Your task to perform on an android device: turn notification dots off Image 0: 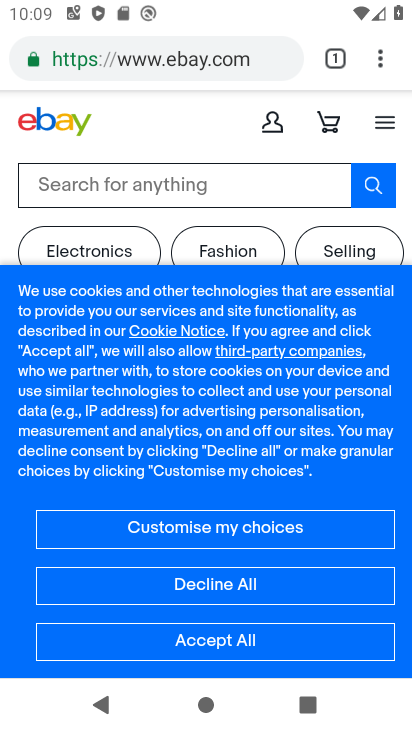
Step 0: press home button
Your task to perform on an android device: turn notification dots off Image 1: 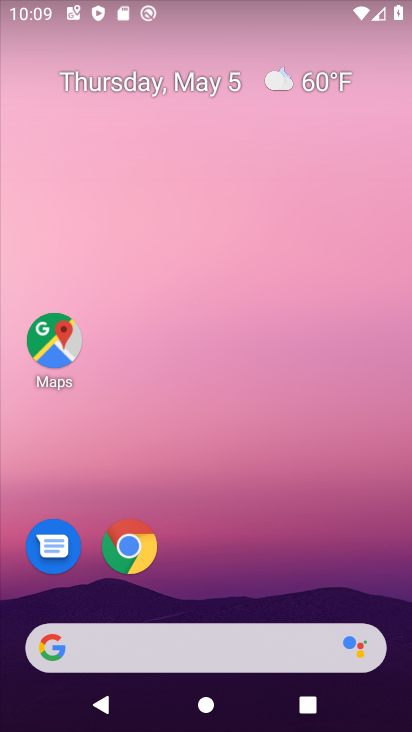
Step 1: drag from (234, 598) to (198, 129)
Your task to perform on an android device: turn notification dots off Image 2: 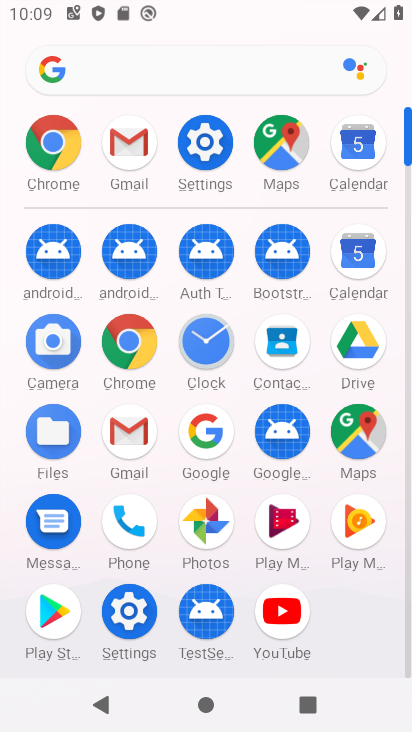
Step 2: click (206, 146)
Your task to perform on an android device: turn notification dots off Image 3: 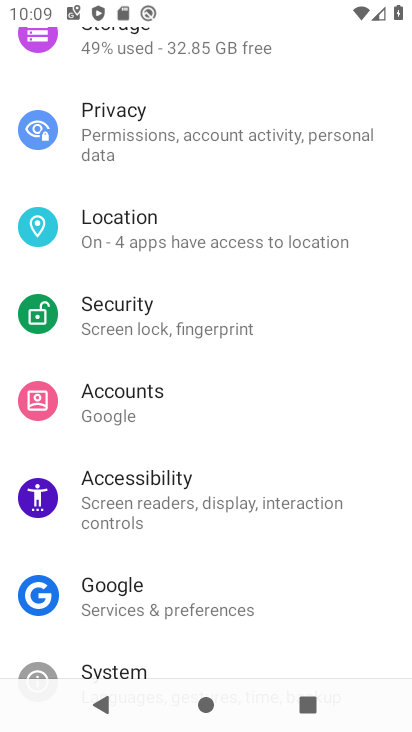
Step 3: drag from (166, 372) to (191, 439)
Your task to perform on an android device: turn notification dots off Image 4: 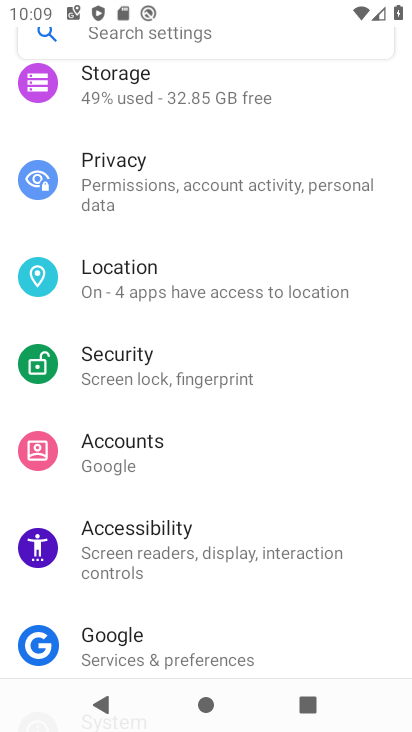
Step 4: drag from (203, 340) to (216, 421)
Your task to perform on an android device: turn notification dots off Image 5: 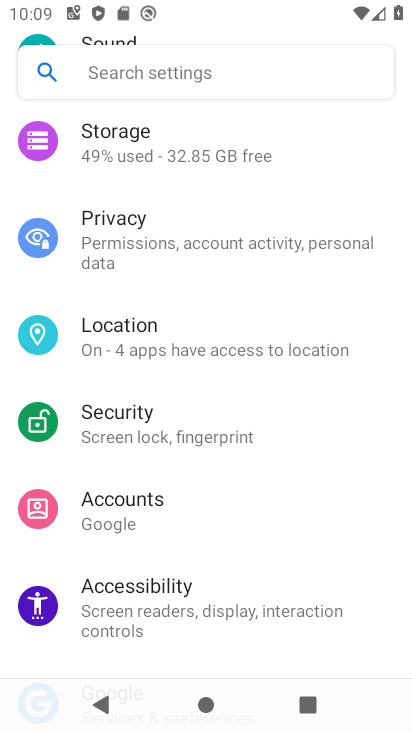
Step 5: drag from (217, 317) to (226, 395)
Your task to perform on an android device: turn notification dots off Image 6: 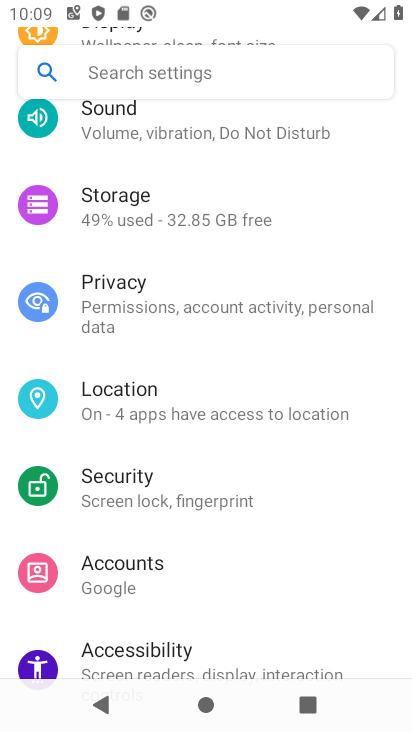
Step 6: drag from (209, 306) to (207, 386)
Your task to perform on an android device: turn notification dots off Image 7: 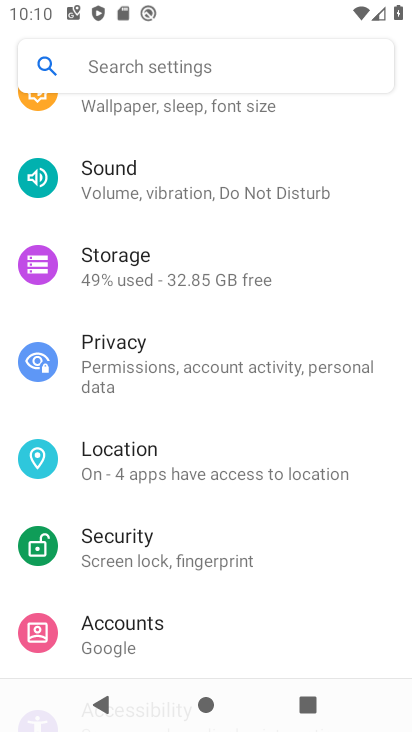
Step 7: drag from (179, 264) to (187, 349)
Your task to perform on an android device: turn notification dots off Image 8: 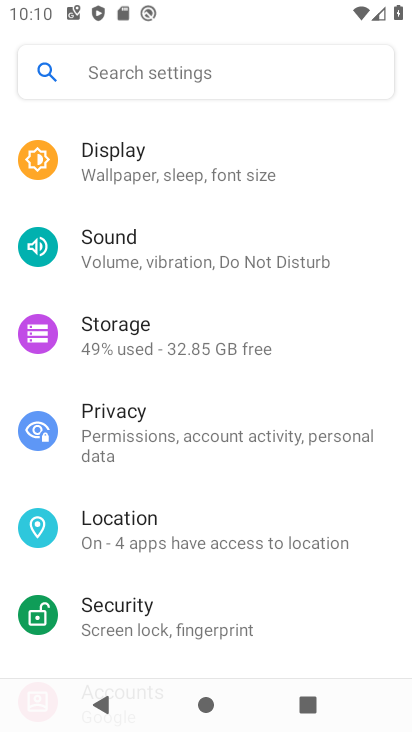
Step 8: drag from (155, 196) to (214, 362)
Your task to perform on an android device: turn notification dots off Image 9: 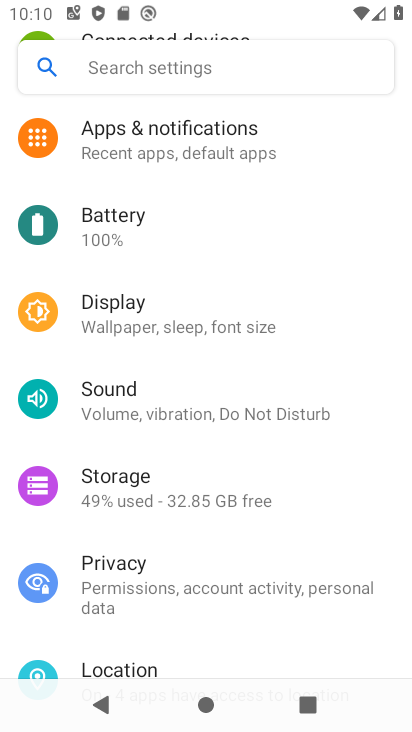
Step 9: click (220, 155)
Your task to perform on an android device: turn notification dots off Image 10: 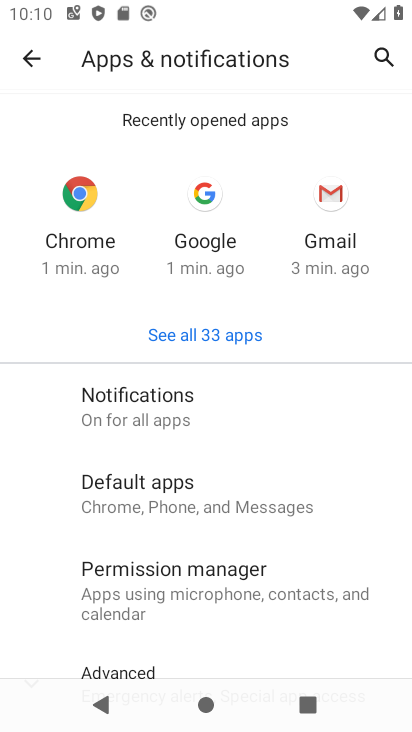
Step 10: click (174, 406)
Your task to perform on an android device: turn notification dots off Image 11: 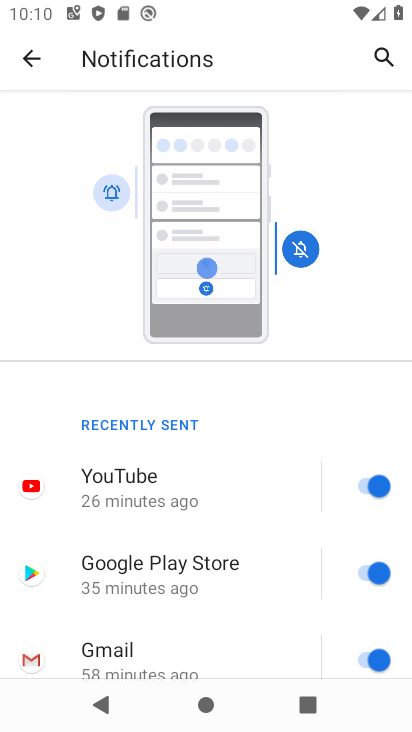
Step 11: drag from (131, 612) to (133, 433)
Your task to perform on an android device: turn notification dots off Image 12: 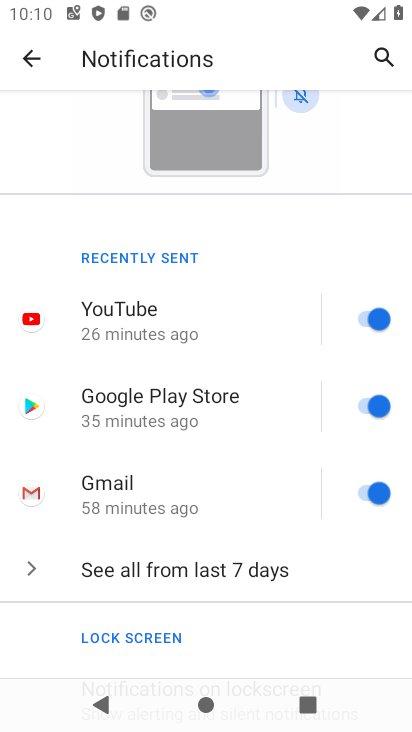
Step 12: drag from (179, 593) to (157, 402)
Your task to perform on an android device: turn notification dots off Image 13: 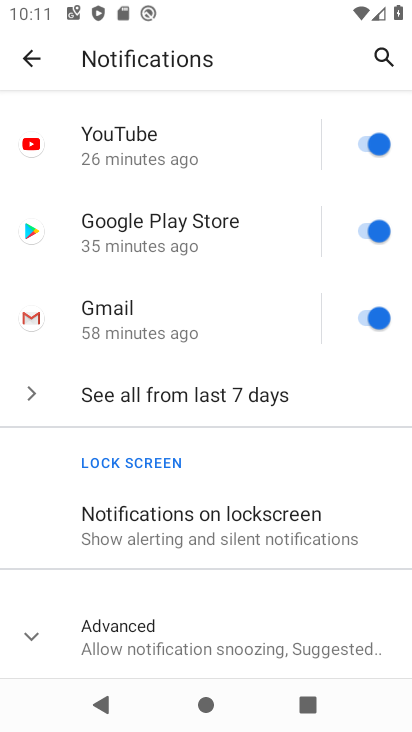
Step 13: click (135, 652)
Your task to perform on an android device: turn notification dots off Image 14: 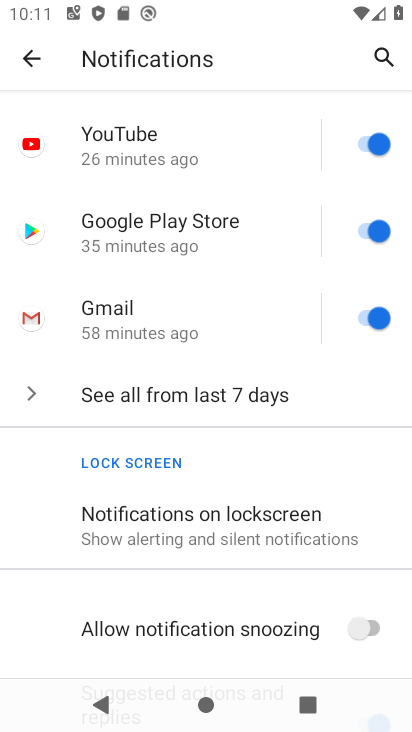
Step 14: task complete